Your task to perform on an android device: Search for pizza restaurants on Maps Image 0: 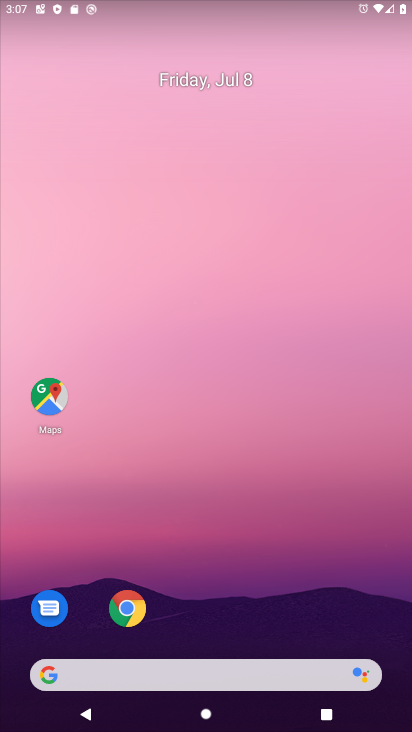
Step 0: drag from (288, 592) to (329, 3)
Your task to perform on an android device: Search for pizza restaurants on Maps Image 1: 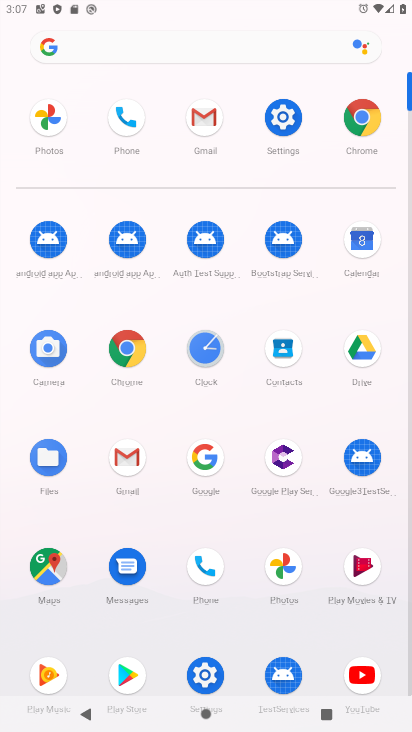
Step 1: click (49, 575)
Your task to perform on an android device: Search for pizza restaurants on Maps Image 2: 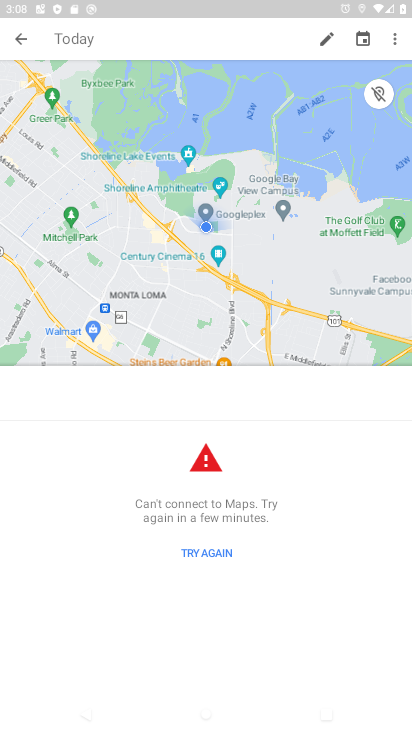
Step 2: press back button
Your task to perform on an android device: Search for pizza restaurants on Maps Image 3: 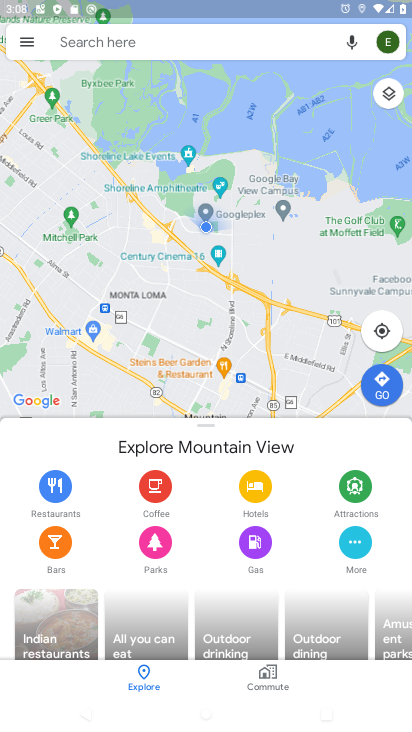
Step 3: click (78, 37)
Your task to perform on an android device: Search for pizza restaurants on Maps Image 4: 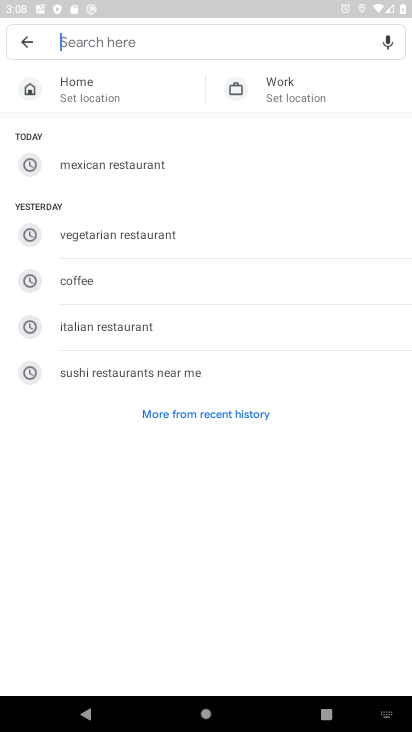
Step 4: click (112, 51)
Your task to perform on an android device: Search for pizza restaurants on Maps Image 5: 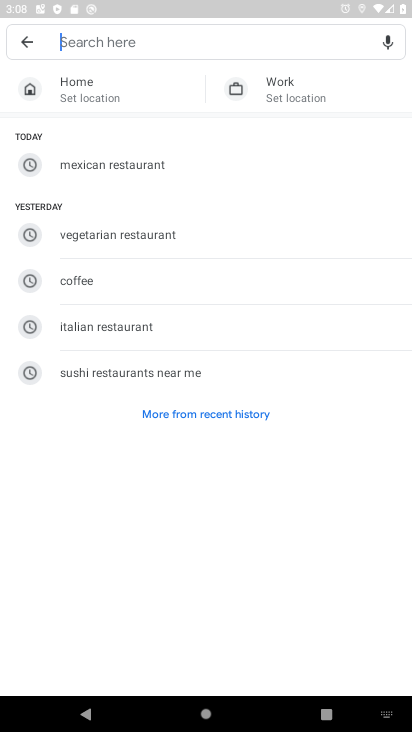
Step 5: type "pizza restaurant"
Your task to perform on an android device: Search for pizza restaurants on Maps Image 6: 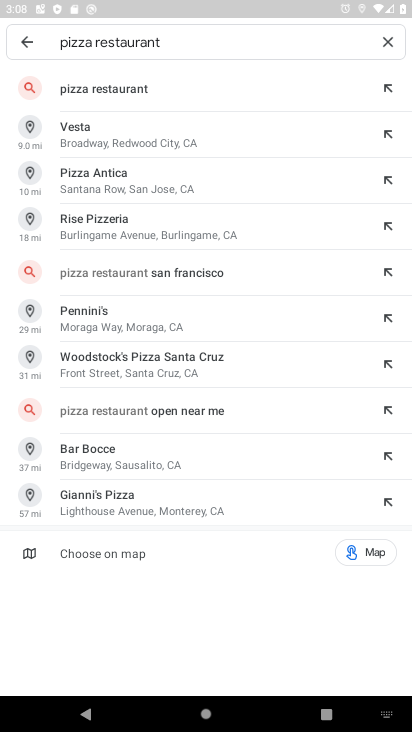
Step 6: click (160, 102)
Your task to perform on an android device: Search for pizza restaurants on Maps Image 7: 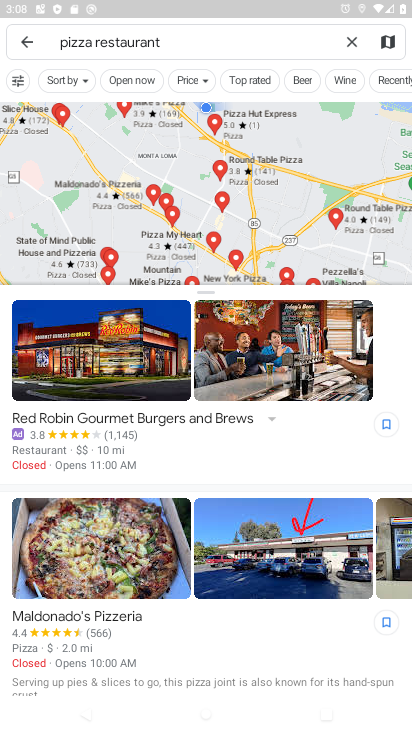
Step 7: task complete